Your task to perform on an android device: turn off priority inbox in the gmail app Image 0: 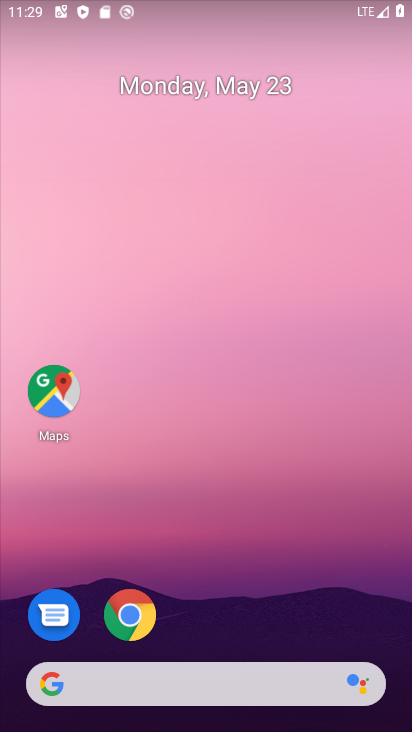
Step 0: drag from (212, 618) to (204, 237)
Your task to perform on an android device: turn off priority inbox in the gmail app Image 1: 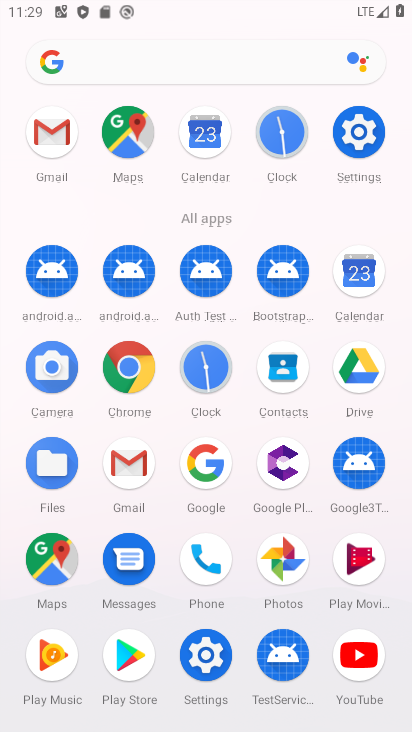
Step 1: click (36, 129)
Your task to perform on an android device: turn off priority inbox in the gmail app Image 2: 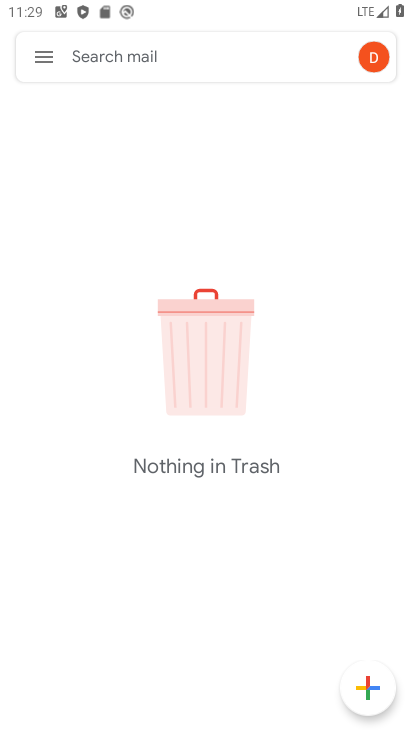
Step 2: click (45, 43)
Your task to perform on an android device: turn off priority inbox in the gmail app Image 3: 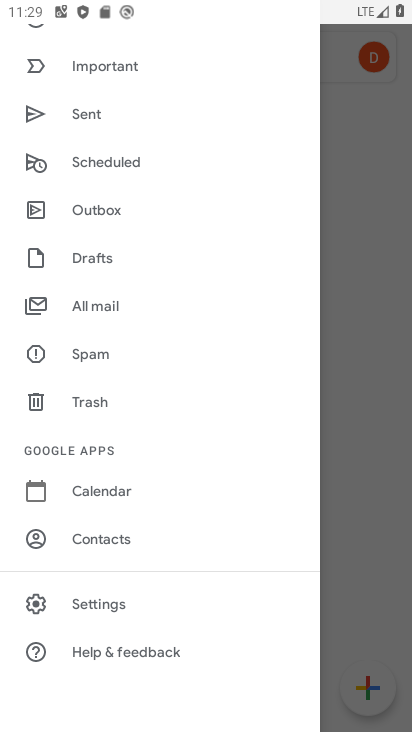
Step 3: click (138, 597)
Your task to perform on an android device: turn off priority inbox in the gmail app Image 4: 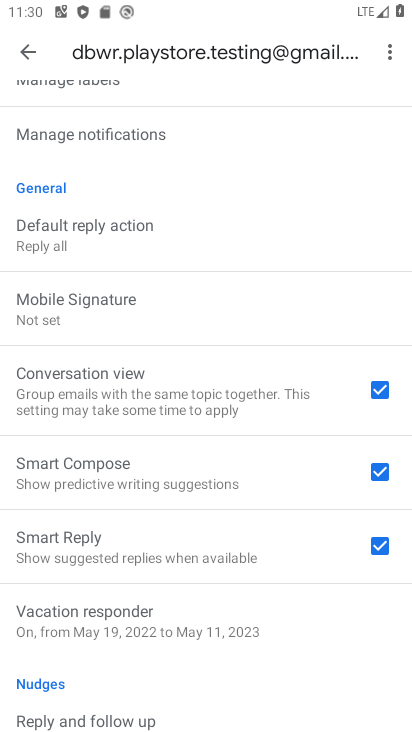
Step 4: drag from (135, 152) to (4, 727)
Your task to perform on an android device: turn off priority inbox in the gmail app Image 5: 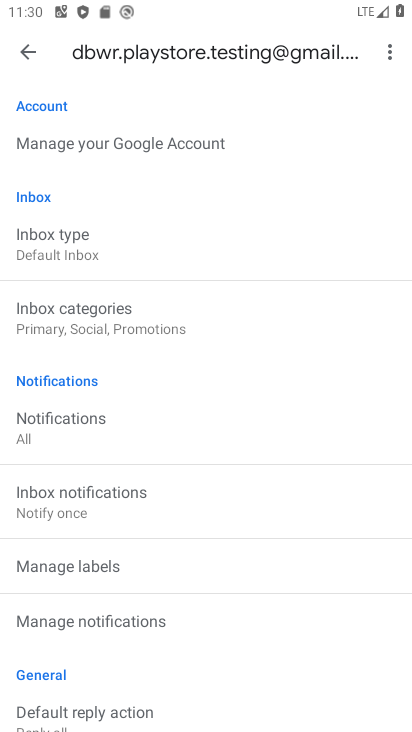
Step 5: click (136, 245)
Your task to perform on an android device: turn off priority inbox in the gmail app Image 6: 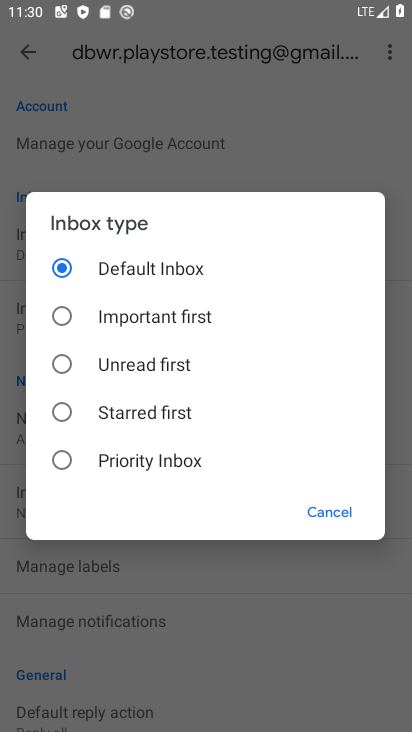
Step 6: click (112, 371)
Your task to perform on an android device: turn off priority inbox in the gmail app Image 7: 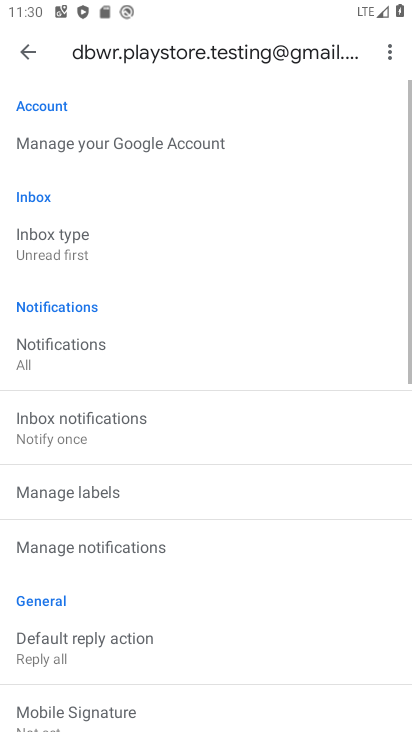
Step 7: task complete